Your task to perform on an android device: What's the weather? Image 0: 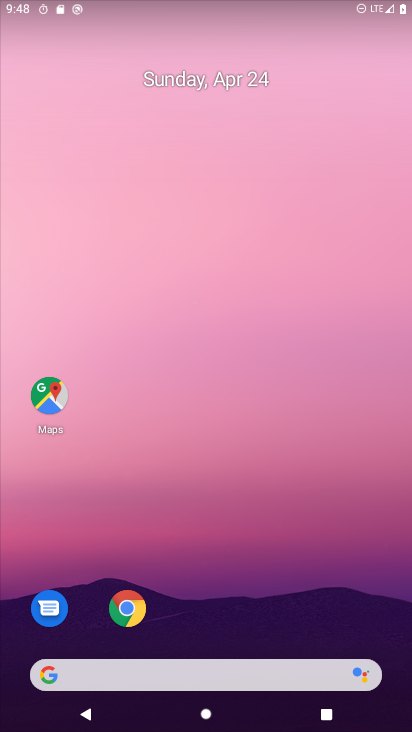
Step 0: click (199, 675)
Your task to perform on an android device: What's the weather? Image 1: 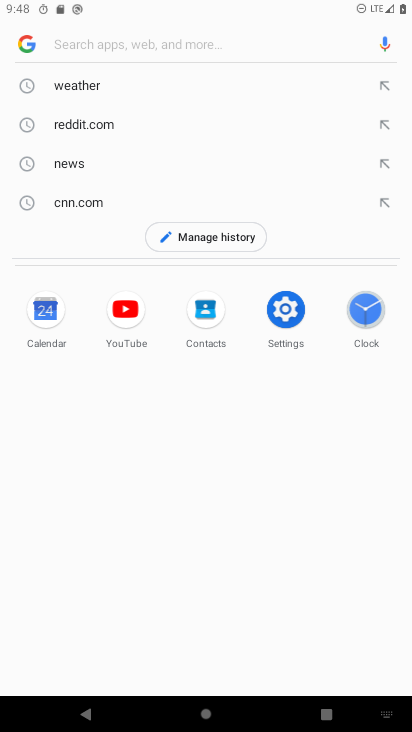
Step 1: click (27, 38)
Your task to perform on an android device: What's the weather? Image 2: 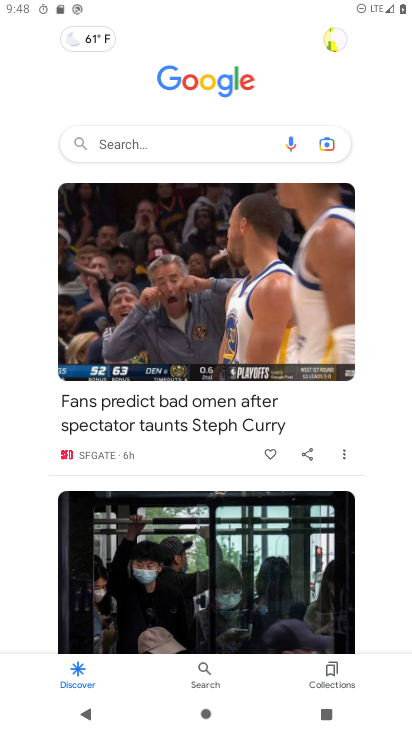
Step 2: click (78, 36)
Your task to perform on an android device: What's the weather? Image 3: 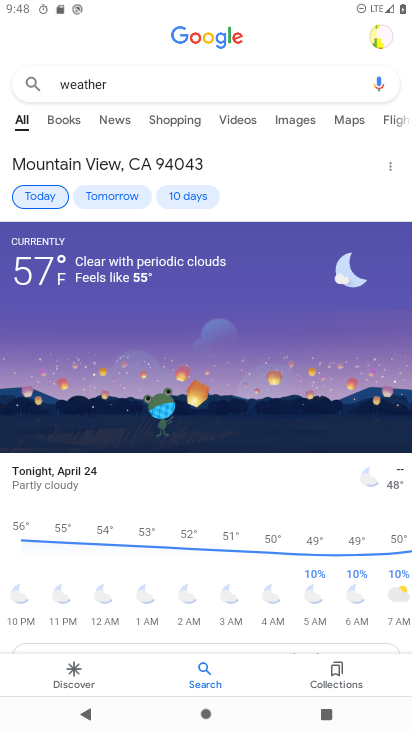
Step 3: task complete